Your task to perform on an android device: turn on showing notifications on the lock screen Image 0: 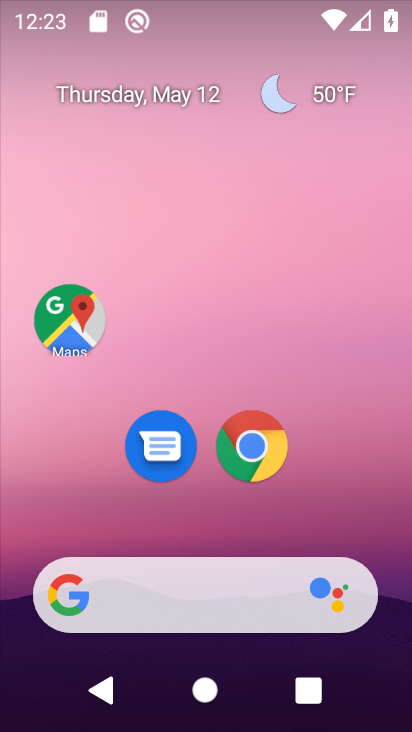
Step 0: drag from (315, 503) to (318, 0)
Your task to perform on an android device: turn on showing notifications on the lock screen Image 1: 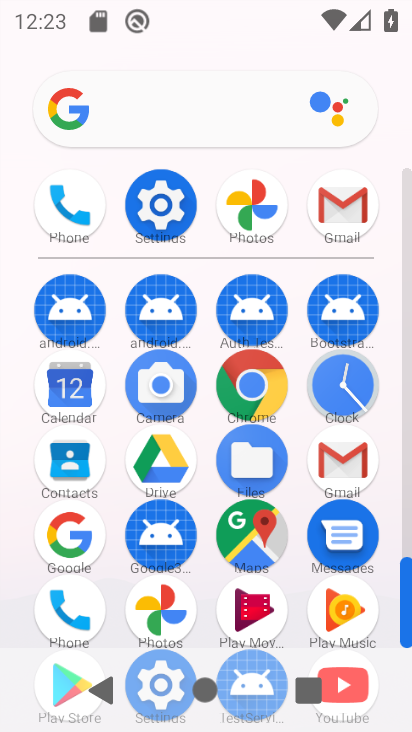
Step 1: drag from (215, 634) to (221, 104)
Your task to perform on an android device: turn on showing notifications on the lock screen Image 2: 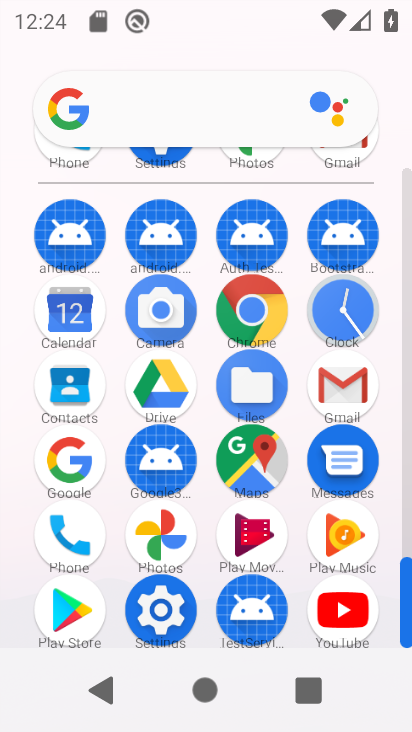
Step 2: click (154, 607)
Your task to perform on an android device: turn on showing notifications on the lock screen Image 3: 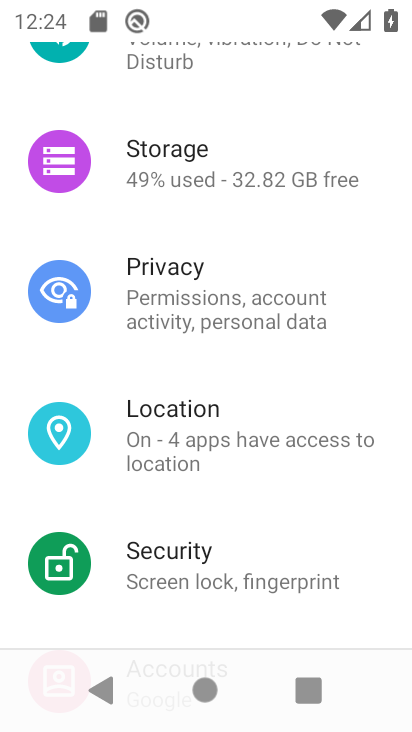
Step 3: drag from (155, 607) to (240, 10)
Your task to perform on an android device: turn on showing notifications on the lock screen Image 4: 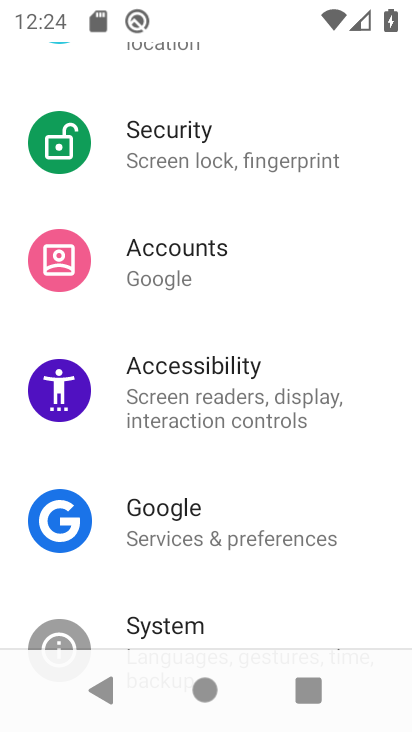
Step 4: drag from (225, 224) to (274, 605)
Your task to perform on an android device: turn on showing notifications on the lock screen Image 5: 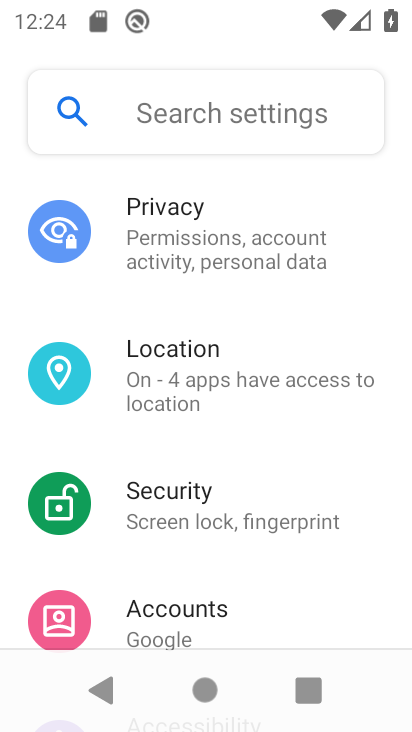
Step 5: drag from (228, 165) to (164, 622)
Your task to perform on an android device: turn on showing notifications on the lock screen Image 6: 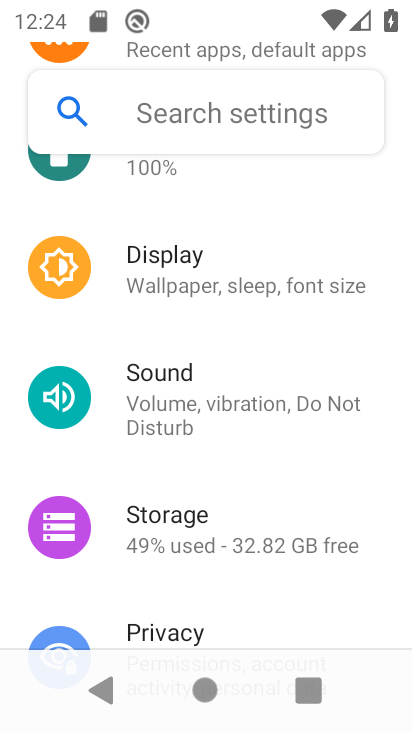
Step 6: drag from (183, 309) to (236, 729)
Your task to perform on an android device: turn on showing notifications on the lock screen Image 7: 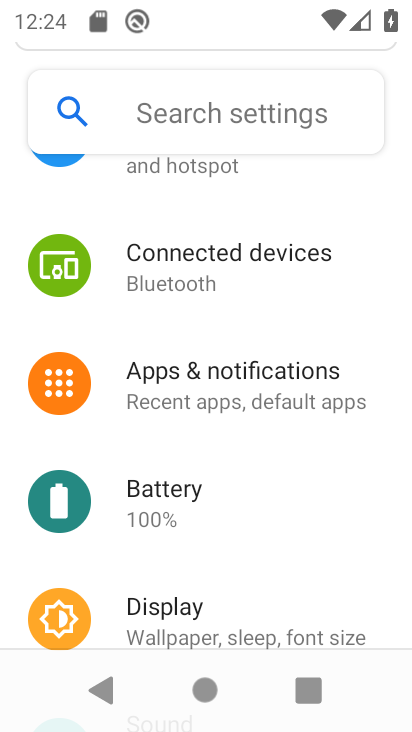
Step 7: click (189, 388)
Your task to perform on an android device: turn on showing notifications on the lock screen Image 8: 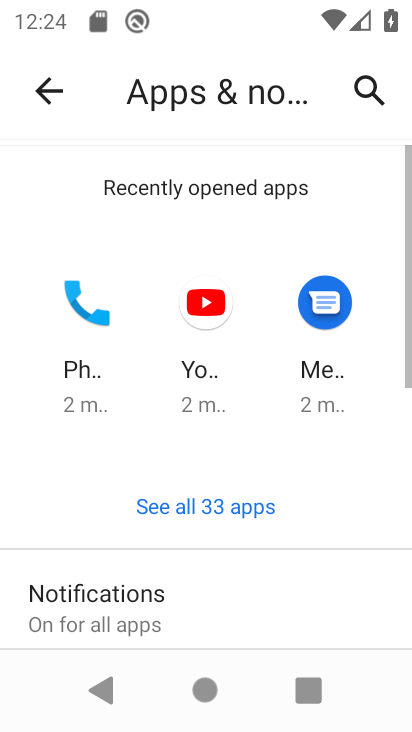
Step 8: drag from (182, 594) to (229, 341)
Your task to perform on an android device: turn on showing notifications on the lock screen Image 9: 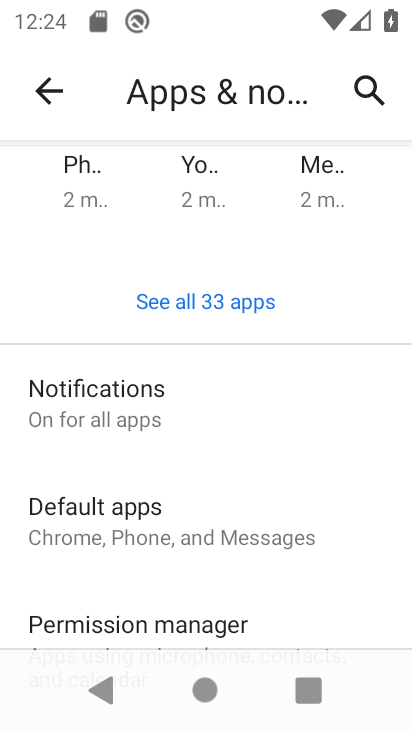
Step 9: click (179, 411)
Your task to perform on an android device: turn on showing notifications on the lock screen Image 10: 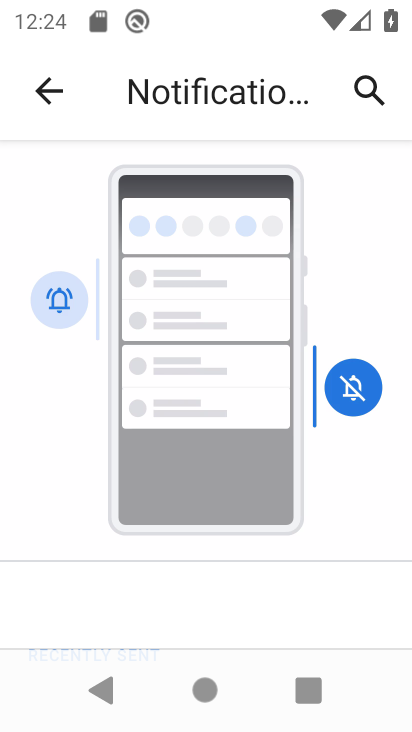
Step 10: drag from (352, 601) to (359, 179)
Your task to perform on an android device: turn on showing notifications on the lock screen Image 11: 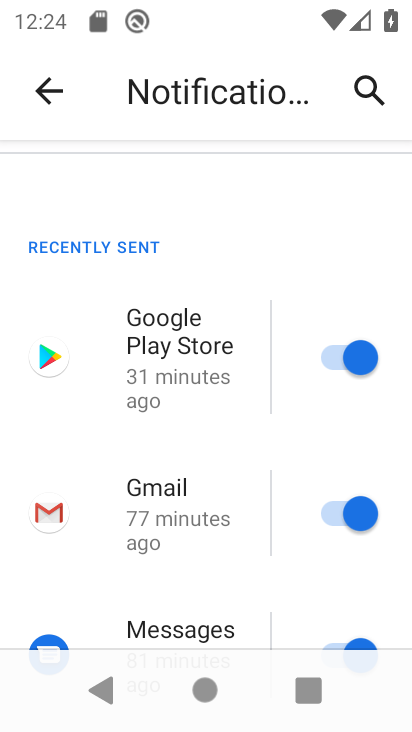
Step 11: drag from (343, 571) to (371, 123)
Your task to perform on an android device: turn on showing notifications on the lock screen Image 12: 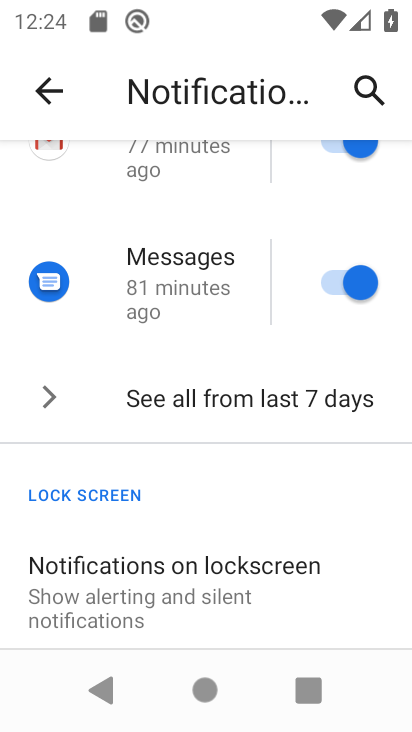
Step 12: click (205, 578)
Your task to perform on an android device: turn on showing notifications on the lock screen Image 13: 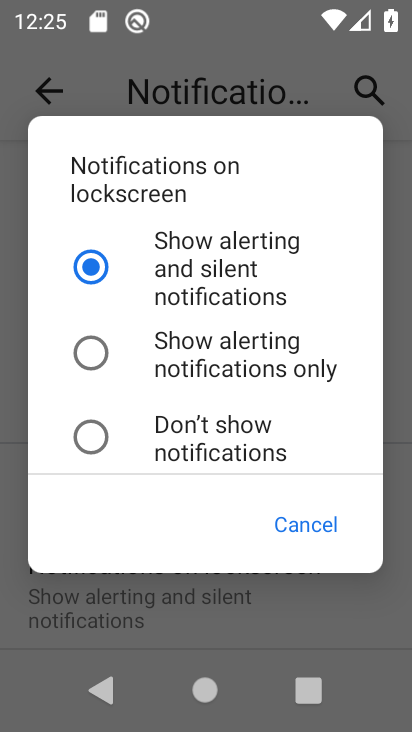
Step 13: task complete